Your task to perform on an android device: turn off priority inbox in the gmail app Image 0: 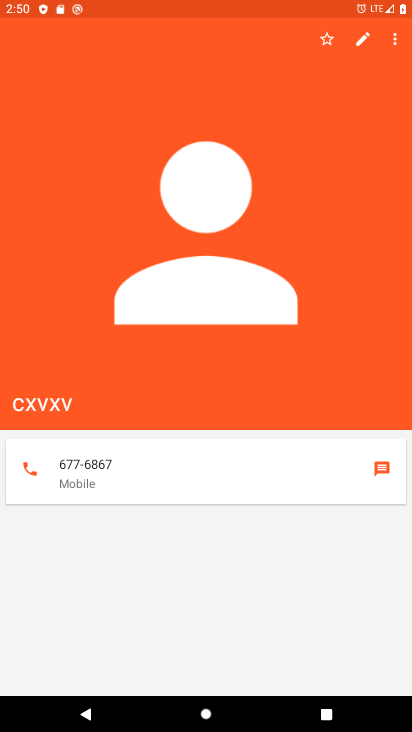
Step 0: press home button
Your task to perform on an android device: turn off priority inbox in the gmail app Image 1: 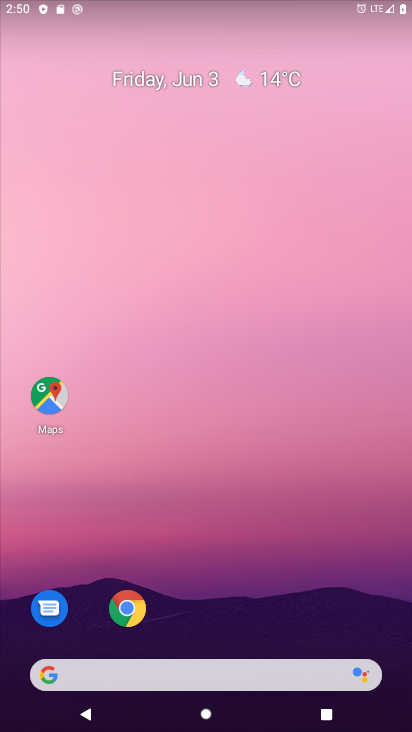
Step 1: drag from (202, 659) to (202, 116)
Your task to perform on an android device: turn off priority inbox in the gmail app Image 2: 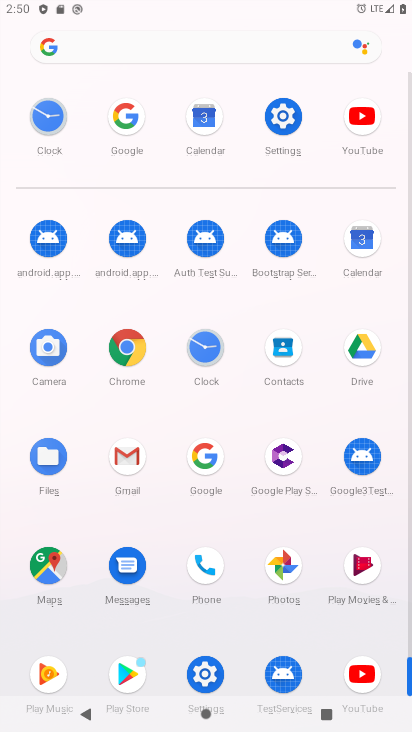
Step 2: click (130, 444)
Your task to perform on an android device: turn off priority inbox in the gmail app Image 3: 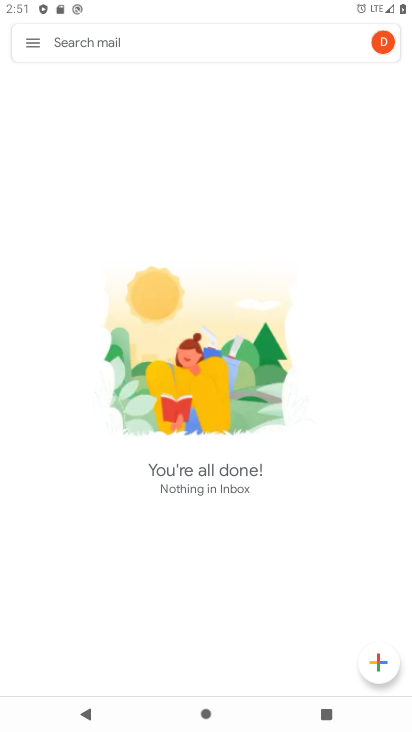
Step 3: click (29, 44)
Your task to perform on an android device: turn off priority inbox in the gmail app Image 4: 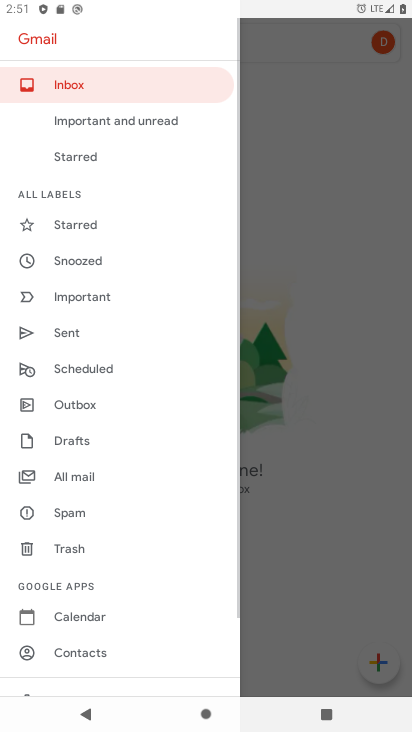
Step 4: drag from (142, 625) to (100, 74)
Your task to perform on an android device: turn off priority inbox in the gmail app Image 5: 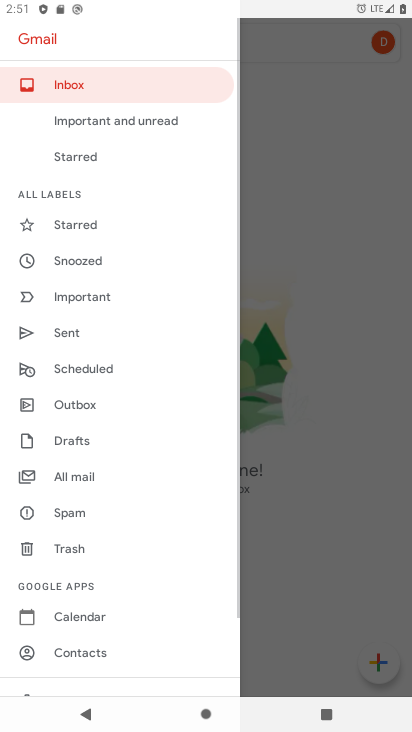
Step 5: drag from (80, 545) to (66, 70)
Your task to perform on an android device: turn off priority inbox in the gmail app Image 6: 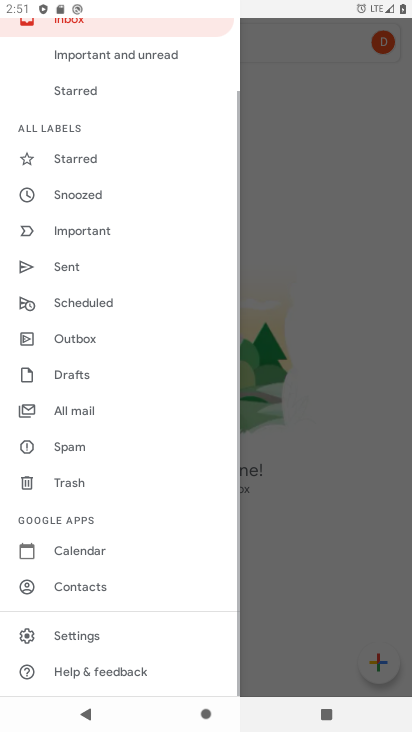
Step 6: click (76, 632)
Your task to perform on an android device: turn off priority inbox in the gmail app Image 7: 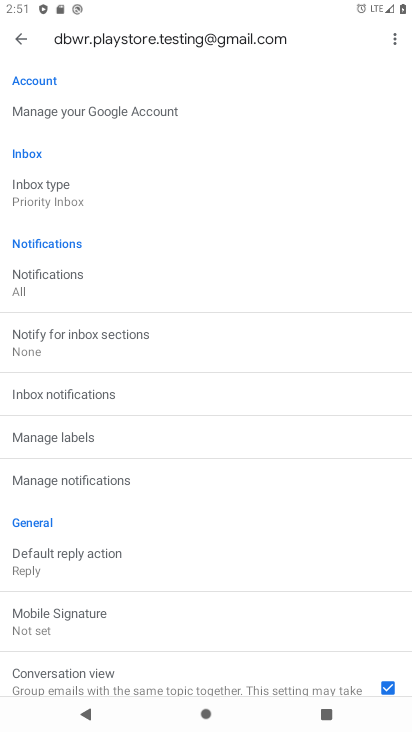
Step 7: click (58, 200)
Your task to perform on an android device: turn off priority inbox in the gmail app Image 8: 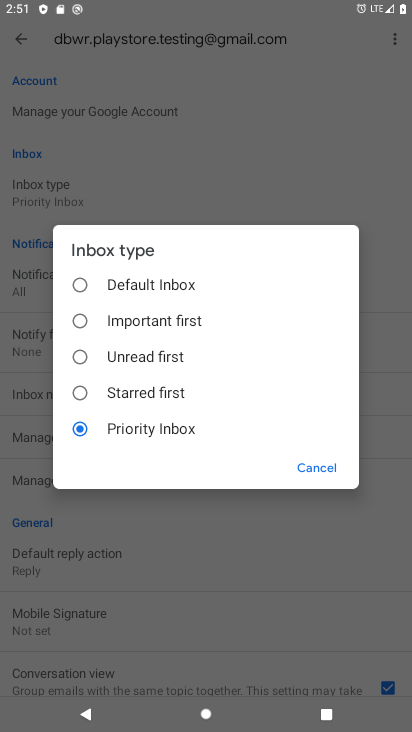
Step 8: click (147, 291)
Your task to perform on an android device: turn off priority inbox in the gmail app Image 9: 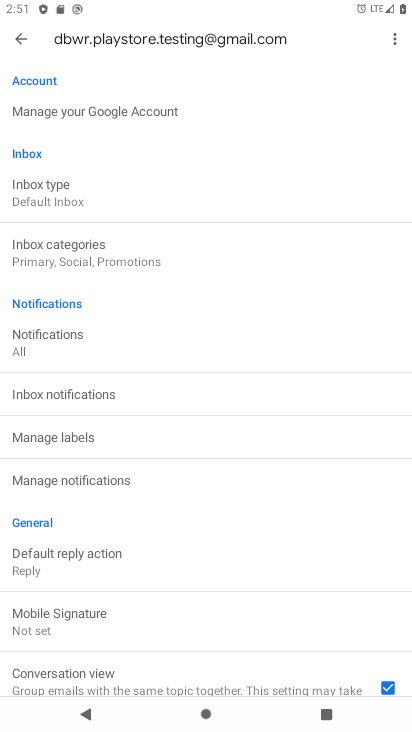
Step 9: task complete